Your task to perform on an android device: Do I have any events this weekend? Image 0: 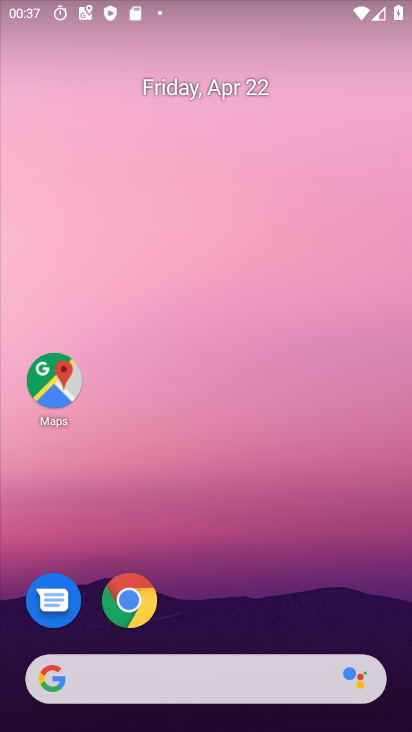
Step 0: click (225, 2)
Your task to perform on an android device: Do I have any events this weekend? Image 1: 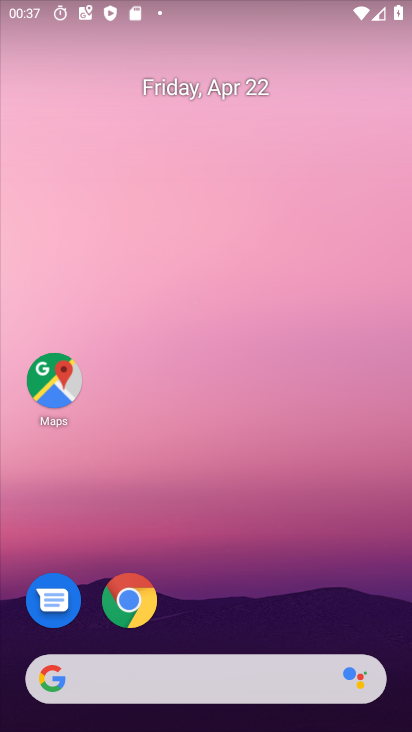
Step 1: drag from (190, 631) to (214, 116)
Your task to perform on an android device: Do I have any events this weekend? Image 2: 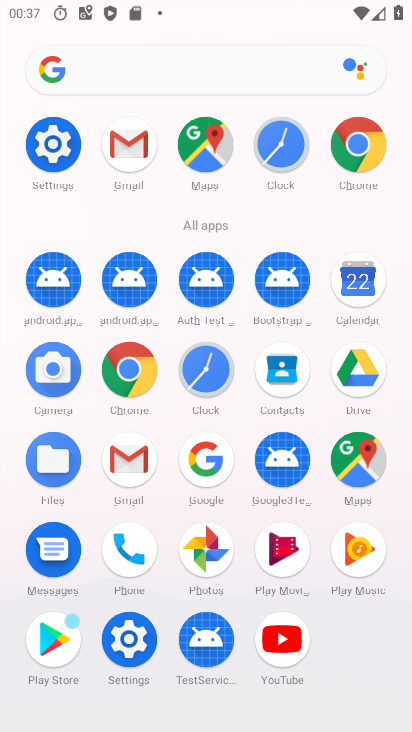
Step 2: click (363, 290)
Your task to perform on an android device: Do I have any events this weekend? Image 3: 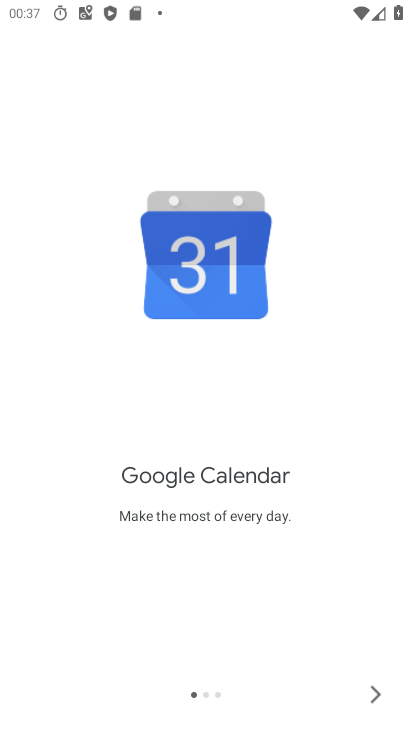
Step 3: click (373, 696)
Your task to perform on an android device: Do I have any events this weekend? Image 4: 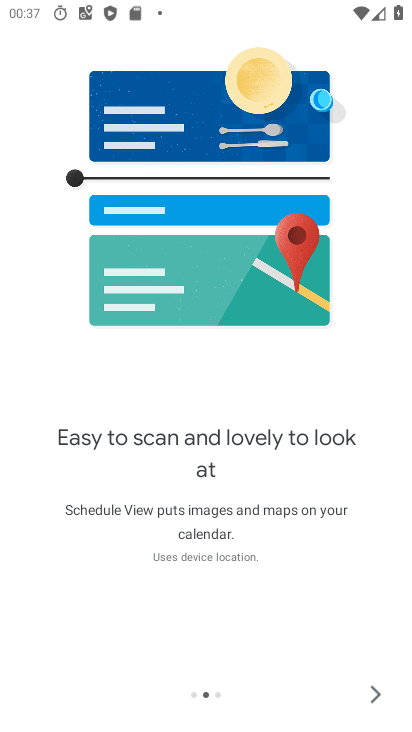
Step 4: click (373, 696)
Your task to perform on an android device: Do I have any events this weekend? Image 5: 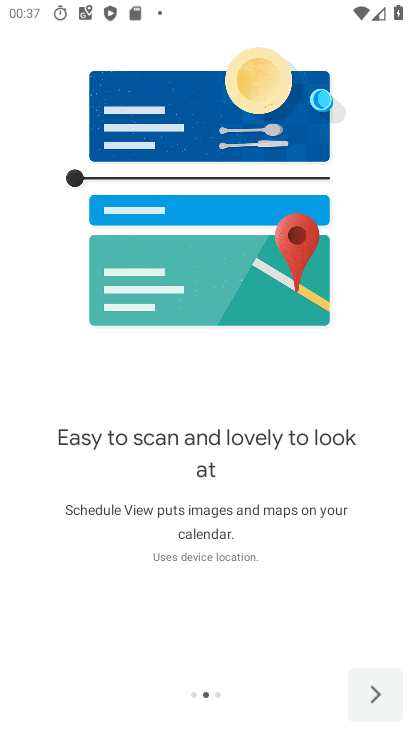
Step 5: click (373, 696)
Your task to perform on an android device: Do I have any events this weekend? Image 6: 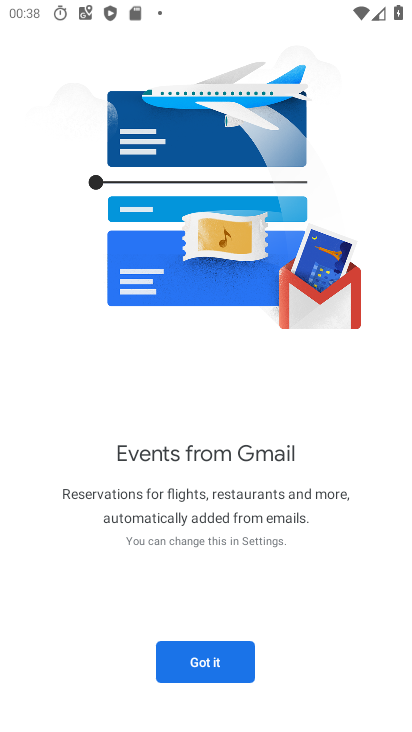
Step 6: click (232, 659)
Your task to perform on an android device: Do I have any events this weekend? Image 7: 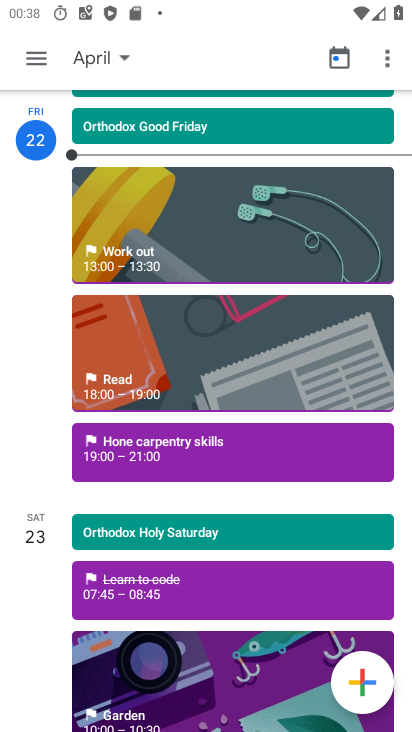
Step 7: click (33, 66)
Your task to perform on an android device: Do I have any events this weekend? Image 8: 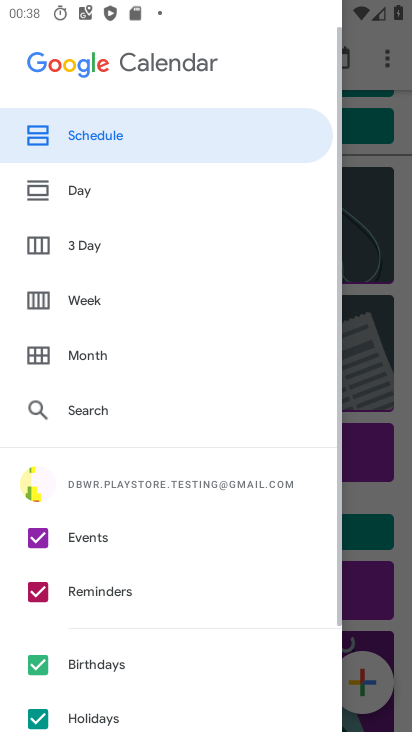
Step 8: click (38, 589)
Your task to perform on an android device: Do I have any events this weekend? Image 9: 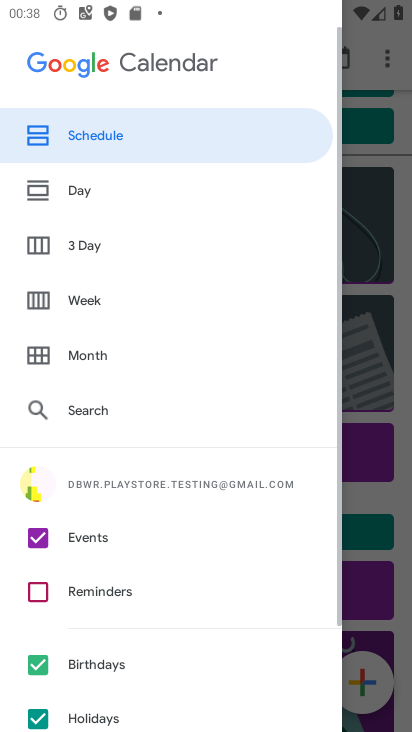
Step 9: click (38, 663)
Your task to perform on an android device: Do I have any events this weekend? Image 10: 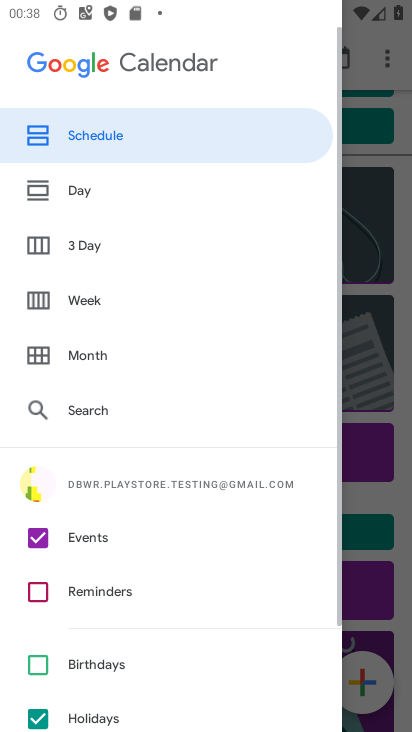
Step 10: click (41, 719)
Your task to perform on an android device: Do I have any events this weekend? Image 11: 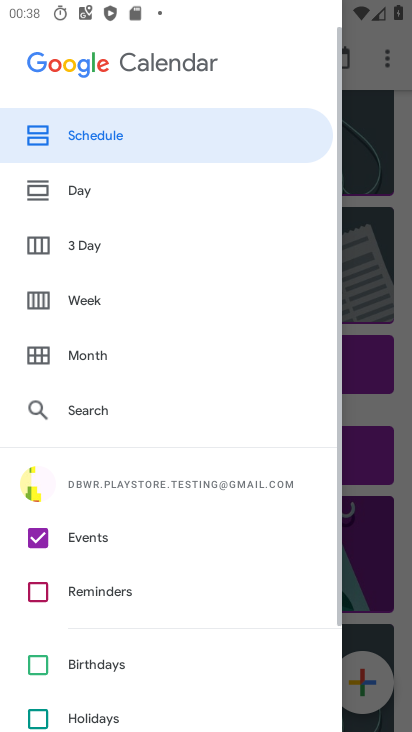
Step 11: click (100, 303)
Your task to perform on an android device: Do I have any events this weekend? Image 12: 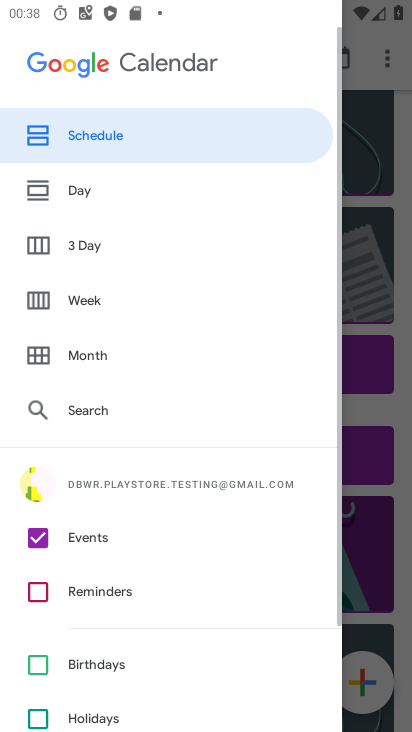
Step 12: click (101, 308)
Your task to perform on an android device: Do I have any events this weekend? Image 13: 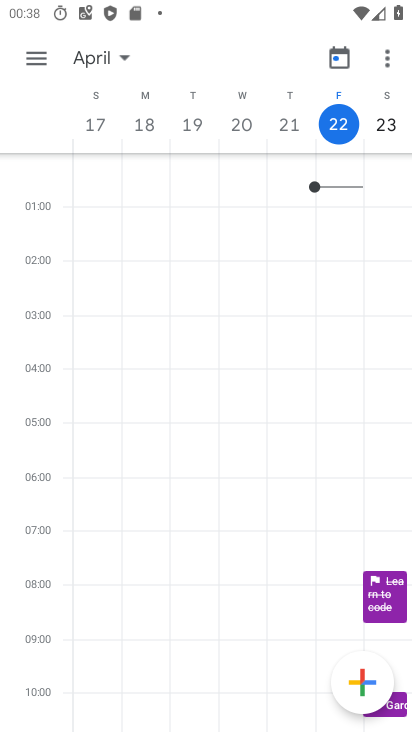
Step 13: task complete